Your task to perform on an android device: Open Youtube and go to "Your channel" Image 0: 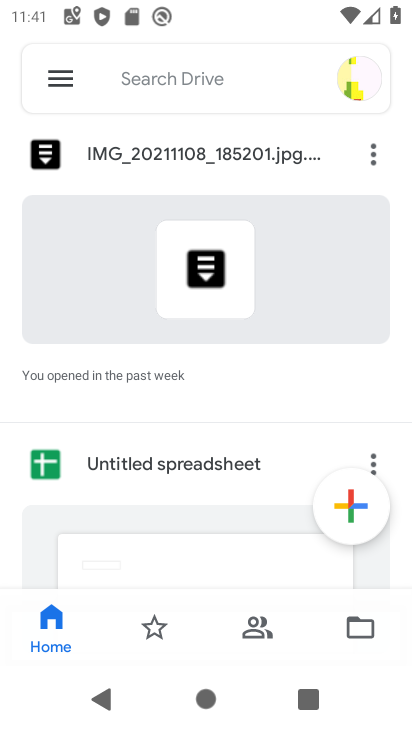
Step 0: press back button
Your task to perform on an android device: Open Youtube and go to "Your channel" Image 1: 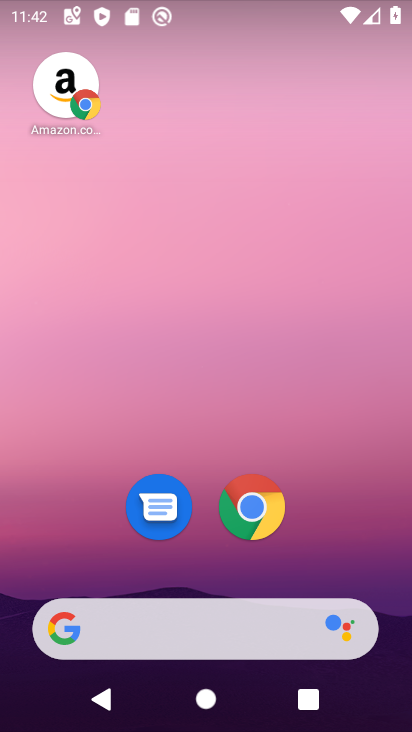
Step 1: drag from (328, 538) to (228, 45)
Your task to perform on an android device: Open Youtube and go to "Your channel" Image 2: 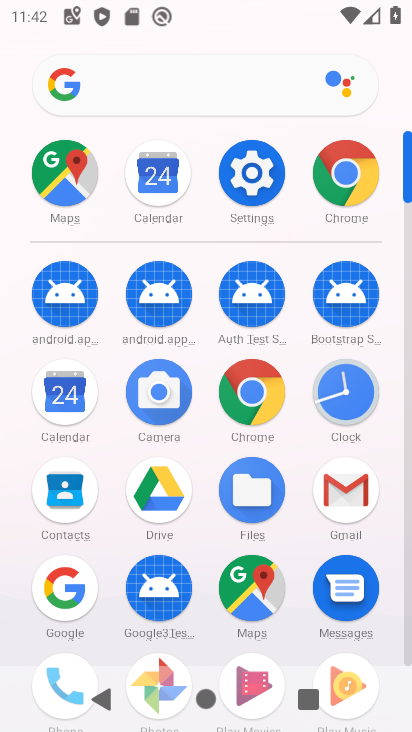
Step 2: drag from (10, 555) to (7, 291)
Your task to perform on an android device: Open Youtube and go to "Your channel" Image 3: 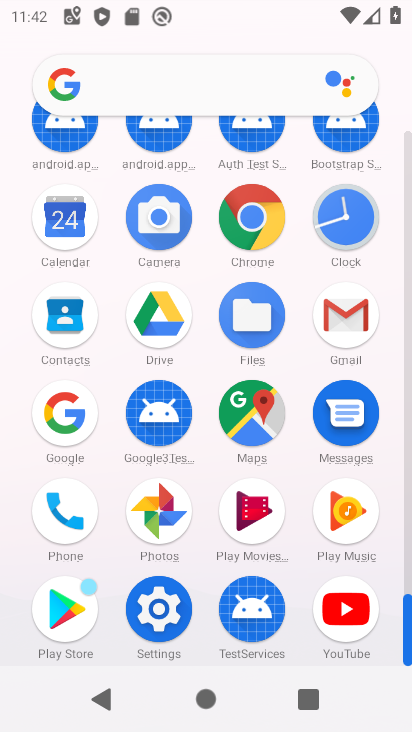
Step 3: click (340, 612)
Your task to perform on an android device: Open Youtube and go to "Your channel" Image 4: 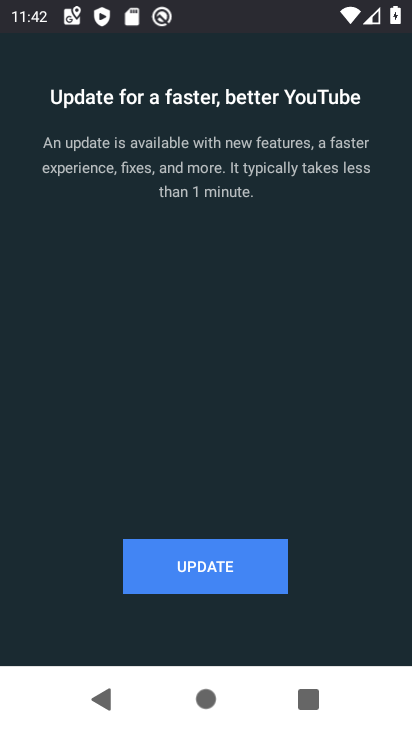
Step 4: click (204, 576)
Your task to perform on an android device: Open Youtube and go to "Your channel" Image 5: 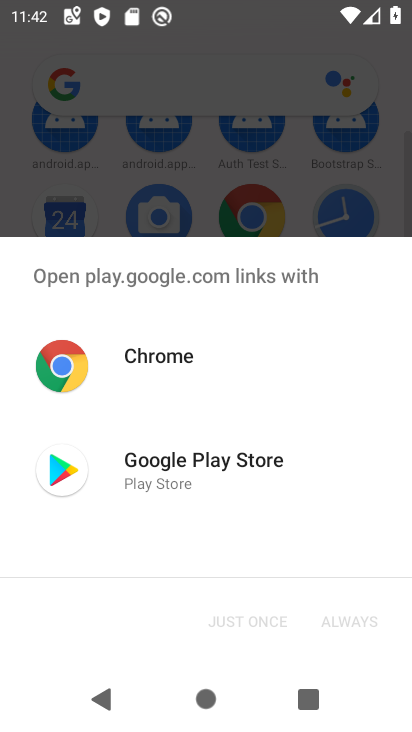
Step 5: click (138, 462)
Your task to perform on an android device: Open Youtube and go to "Your channel" Image 6: 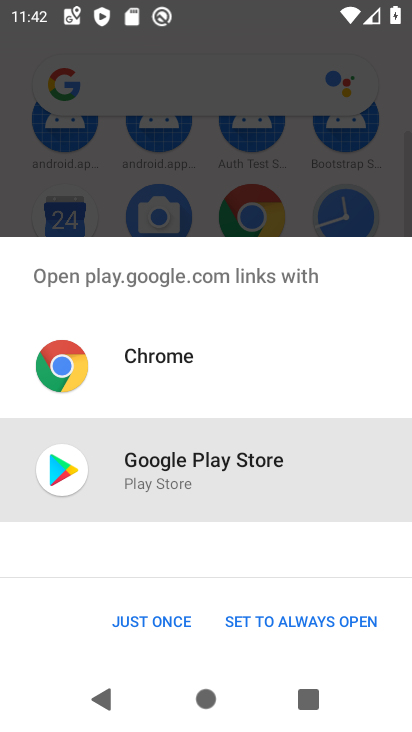
Step 6: click (170, 618)
Your task to perform on an android device: Open Youtube and go to "Your channel" Image 7: 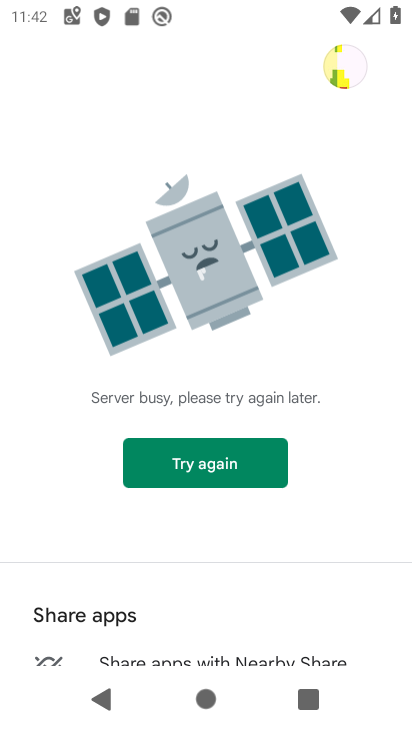
Step 7: click (186, 469)
Your task to perform on an android device: Open Youtube and go to "Your channel" Image 8: 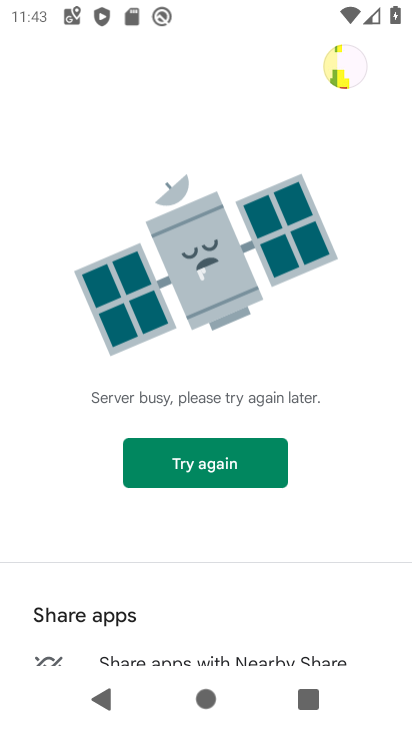
Step 8: task complete